Your task to perform on an android device: create a new album in the google photos Image 0: 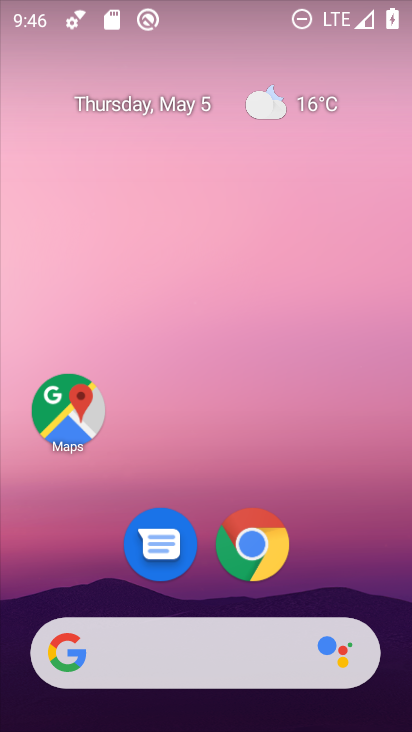
Step 0: drag from (390, 656) to (285, 49)
Your task to perform on an android device: create a new album in the google photos Image 1: 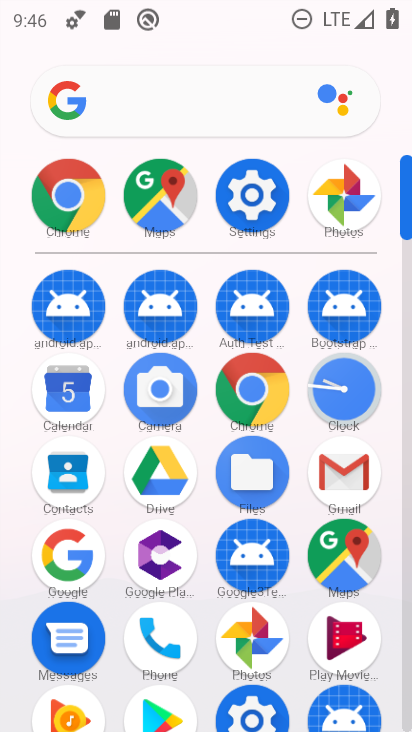
Step 1: click (270, 657)
Your task to perform on an android device: create a new album in the google photos Image 2: 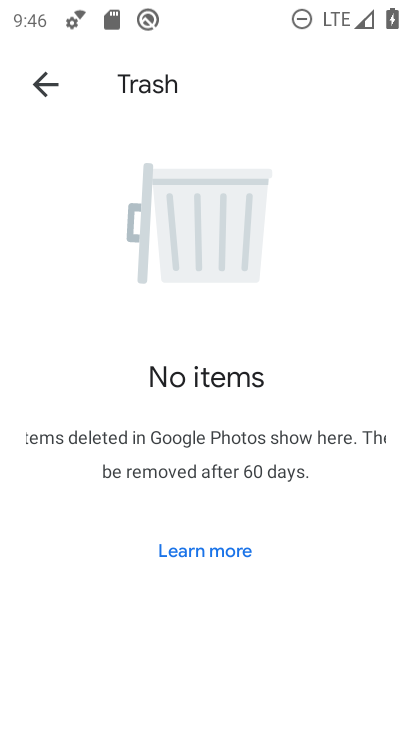
Step 2: click (51, 88)
Your task to perform on an android device: create a new album in the google photos Image 3: 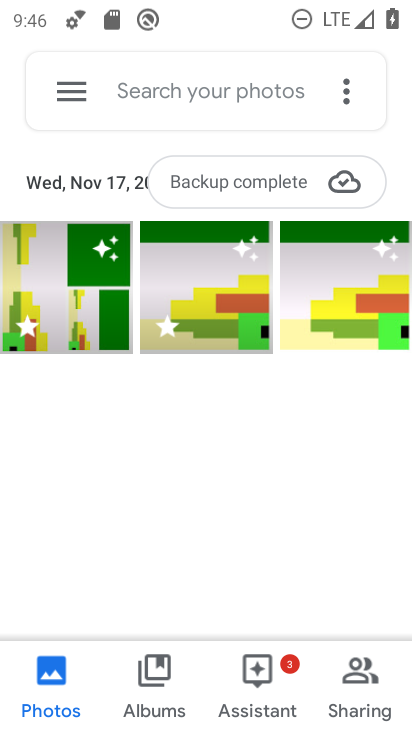
Step 3: click (96, 302)
Your task to perform on an android device: create a new album in the google photos Image 4: 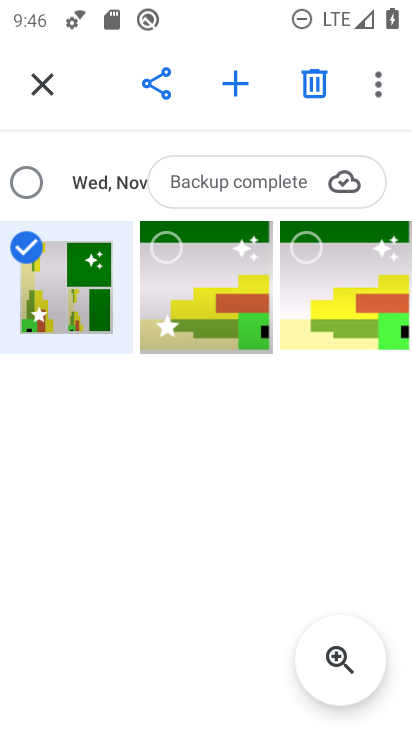
Step 4: click (236, 81)
Your task to perform on an android device: create a new album in the google photos Image 5: 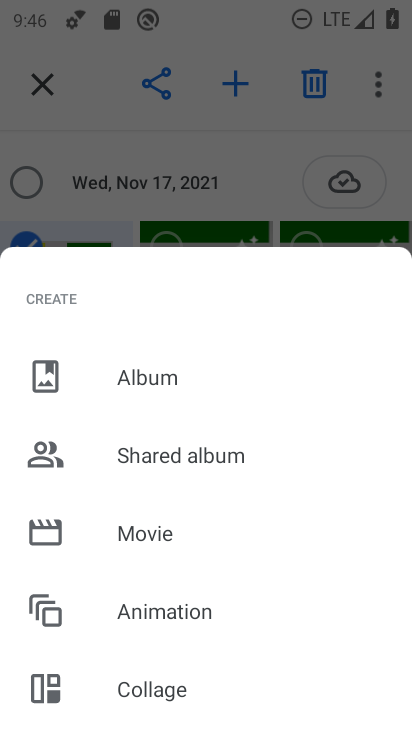
Step 5: click (145, 371)
Your task to perform on an android device: create a new album in the google photos Image 6: 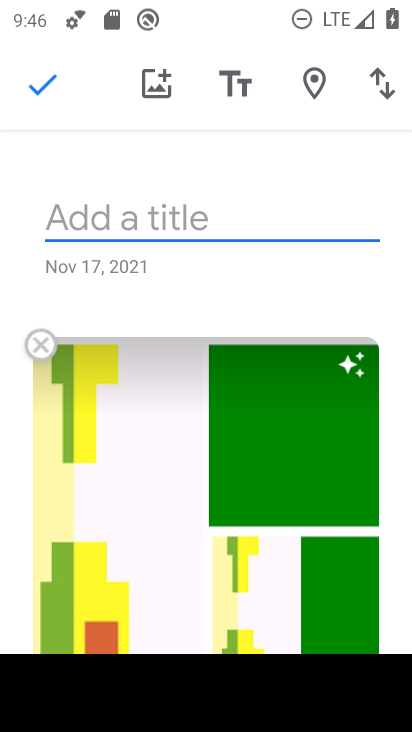
Step 6: type "live"
Your task to perform on an android device: create a new album in the google photos Image 7: 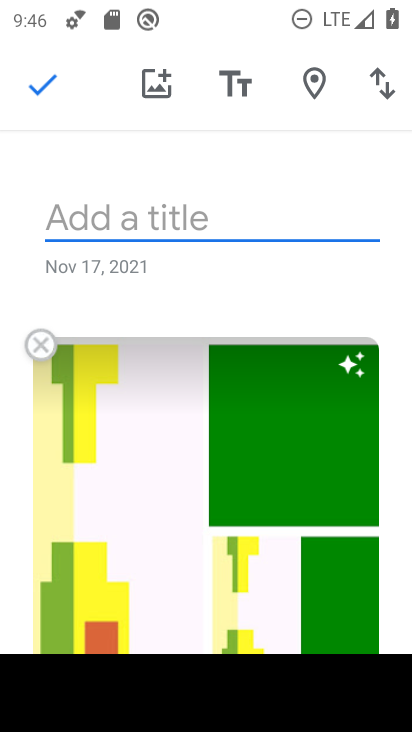
Step 7: click (25, 79)
Your task to perform on an android device: create a new album in the google photos Image 8: 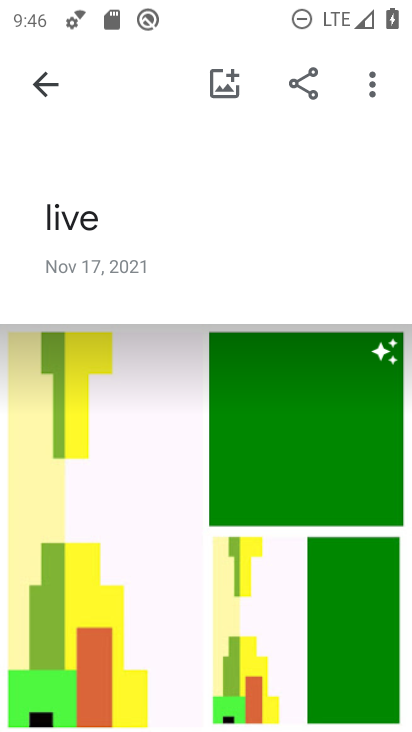
Step 8: task complete